Your task to perform on an android device: Add "lg ultragear" to the cart on walmart.com Image 0: 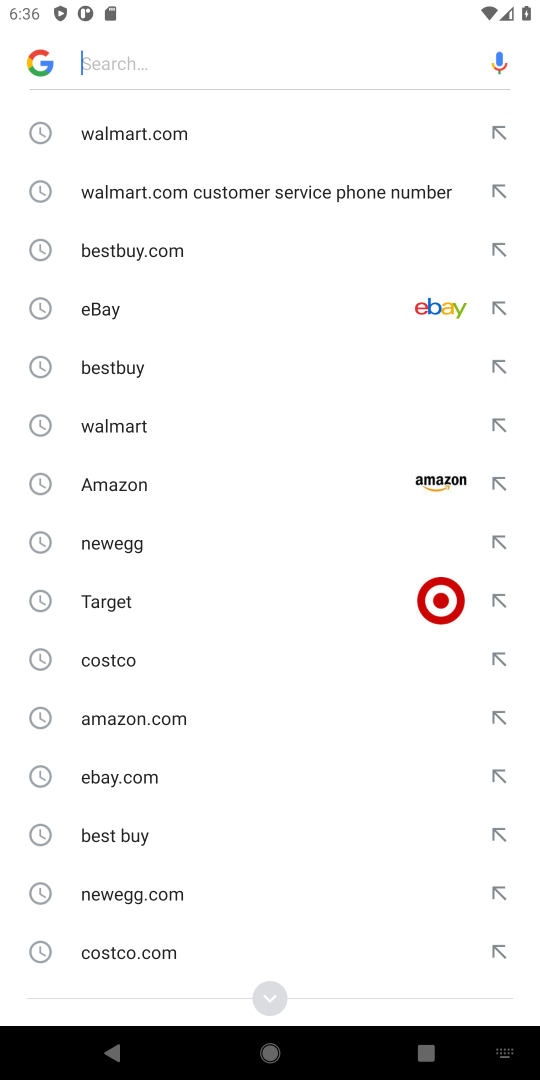
Step 0: press home button
Your task to perform on an android device: Add "lg ultragear" to the cart on walmart.com Image 1: 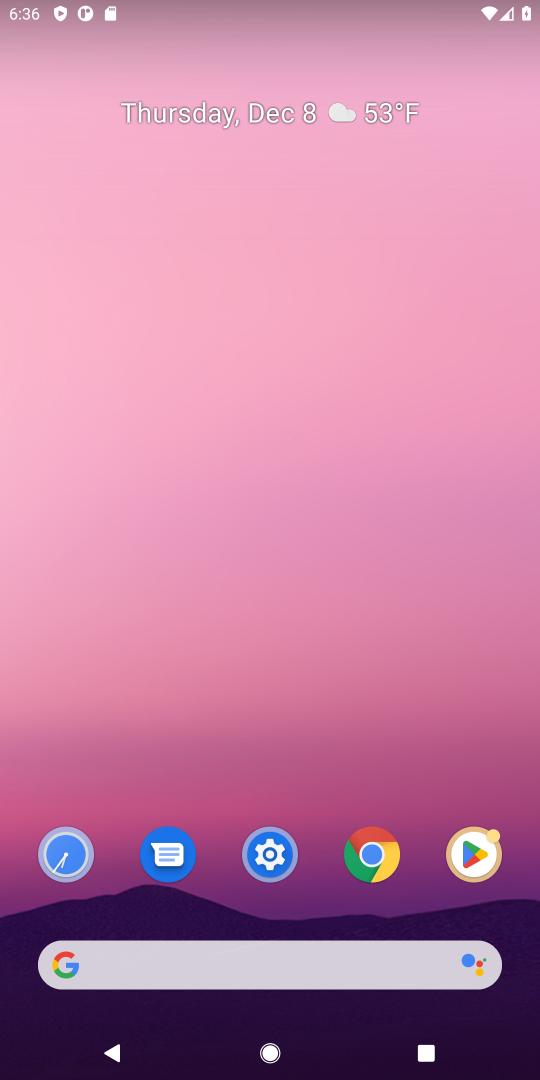
Step 1: click (97, 955)
Your task to perform on an android device: Add "lg ultragear" to the cart on walmart.com Image 2: 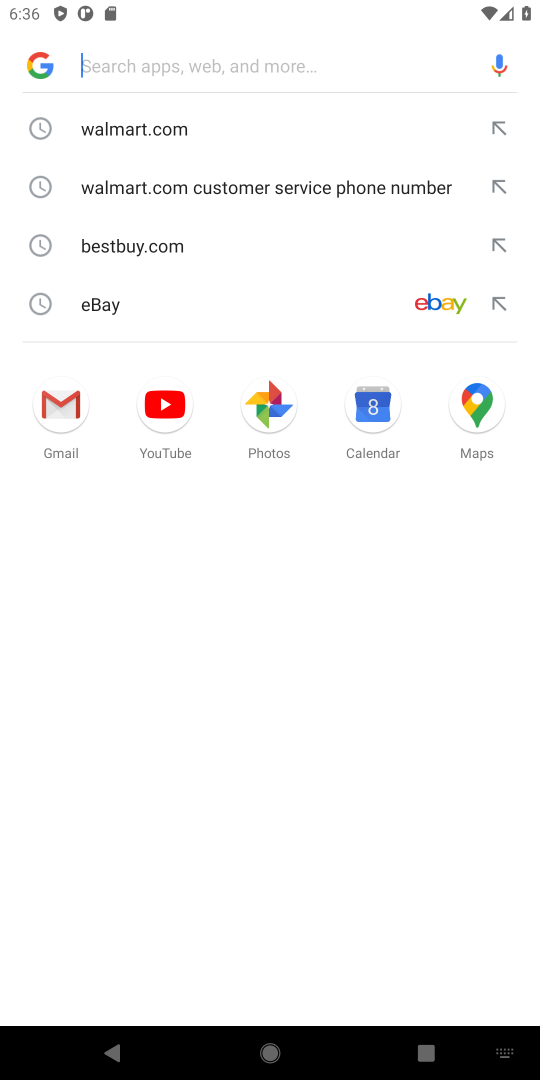
Step 2: type "walmart.com"
Your task to perform on an android device: Add "lg ultragear" to the cart on walmart.com Image 3: 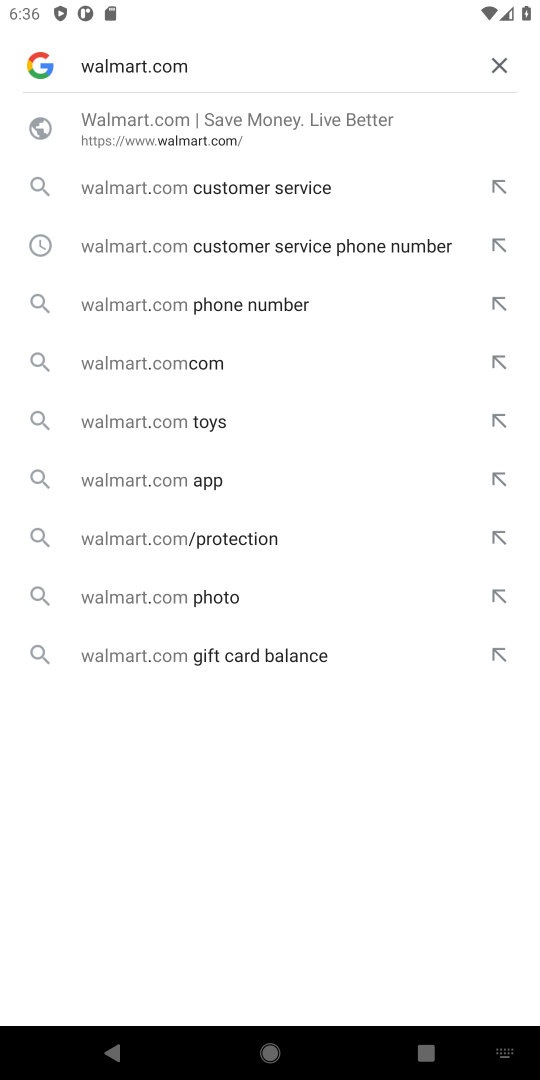
Step 3: press enter
Your task to perform on an android device: Add "lg ultragear" to the cart on walmart.com Image 4: 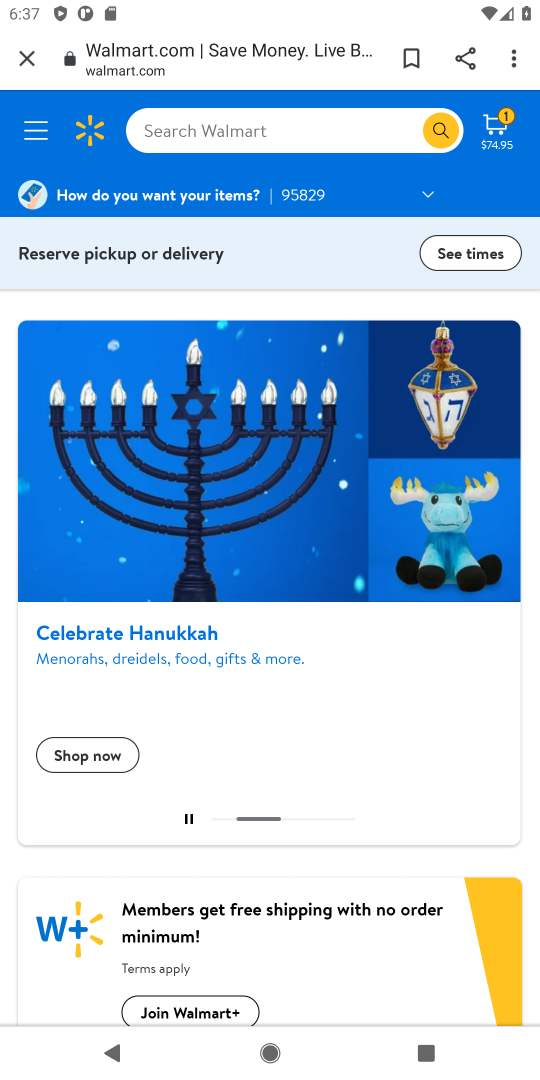
Step 4: click (232, 116)
Your task to perform on an android device: Add "lg ultragear" to the cart on walmart.com Image 5: 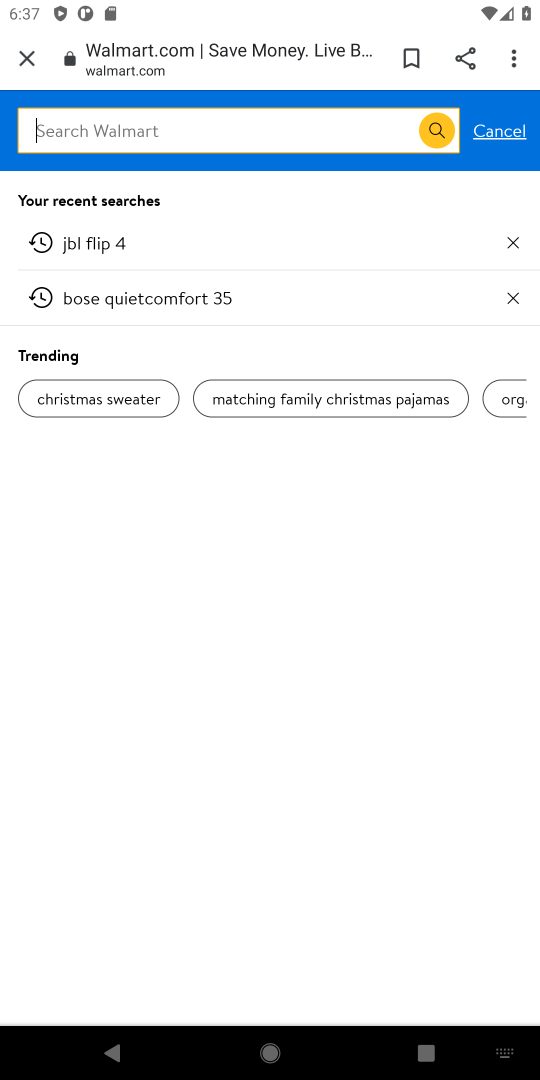
Step 5: type "lg ultragear"
Your task to perform on an android device: Add "lg ultragear" to the cart on walmart.com Image 6: 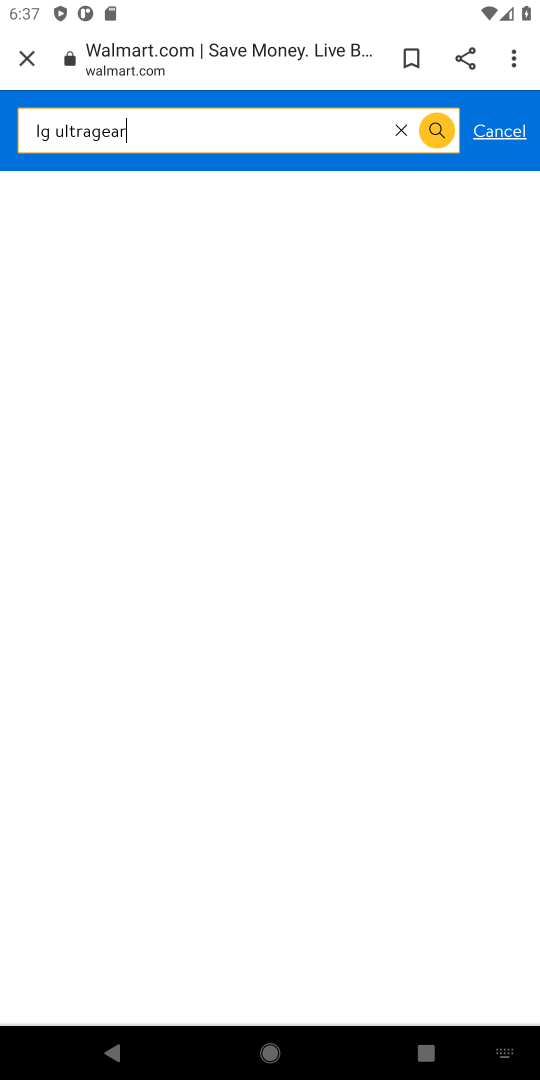
Step 6: press enter
Your task to perform on an android device: Add "lg ultragear" to the cart on walmart.com Image 7: 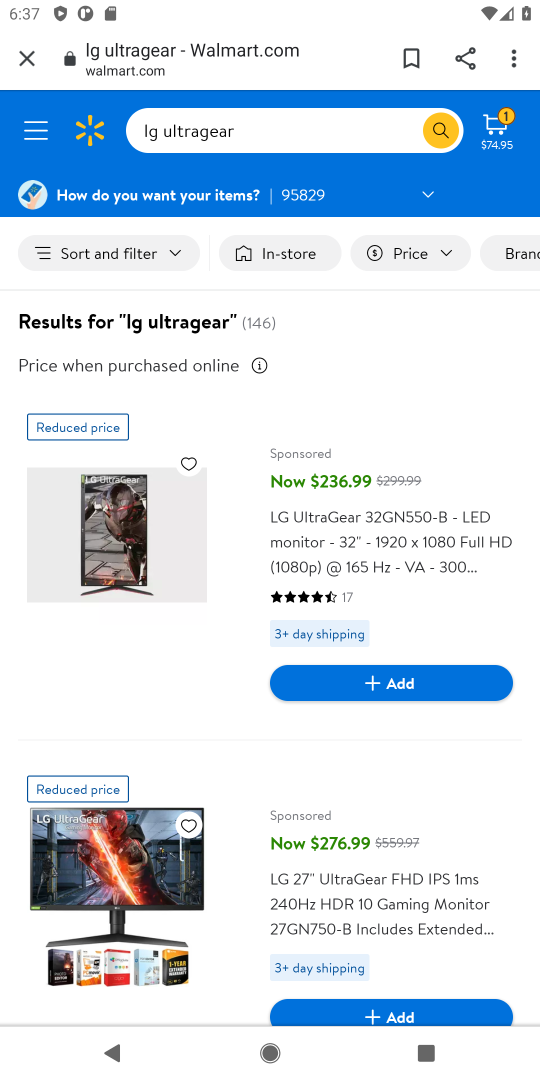
Step 7: click (406, 683)
Your task to perform on an android device: Add "lg ultragear" to the cart on walmart.com Image 8: 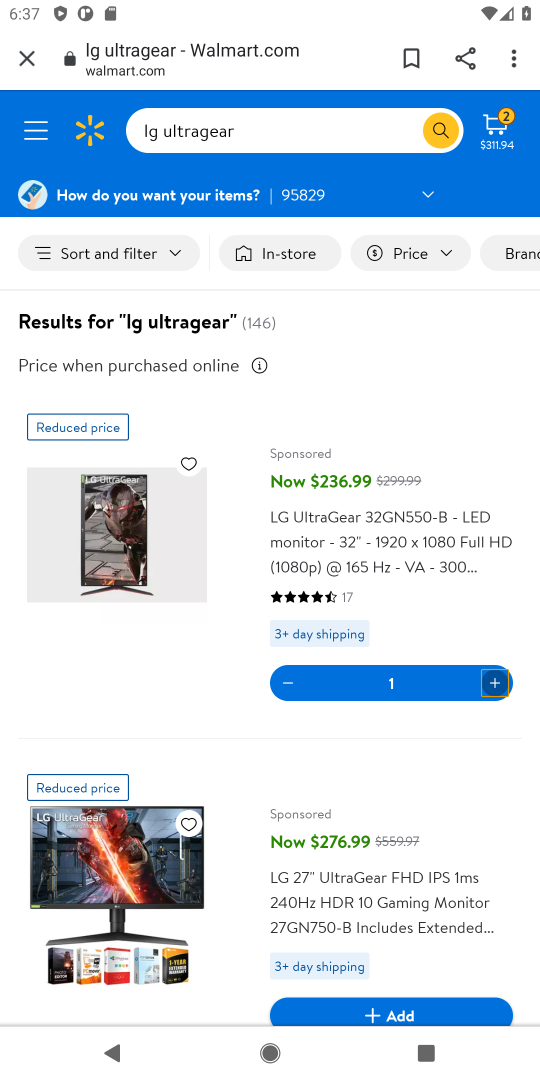
Step 8: task complete